Your task to perform on an android device: Search for "jbl flip 4" on ebay, select the first entry, and add it to the cart. Image 0: 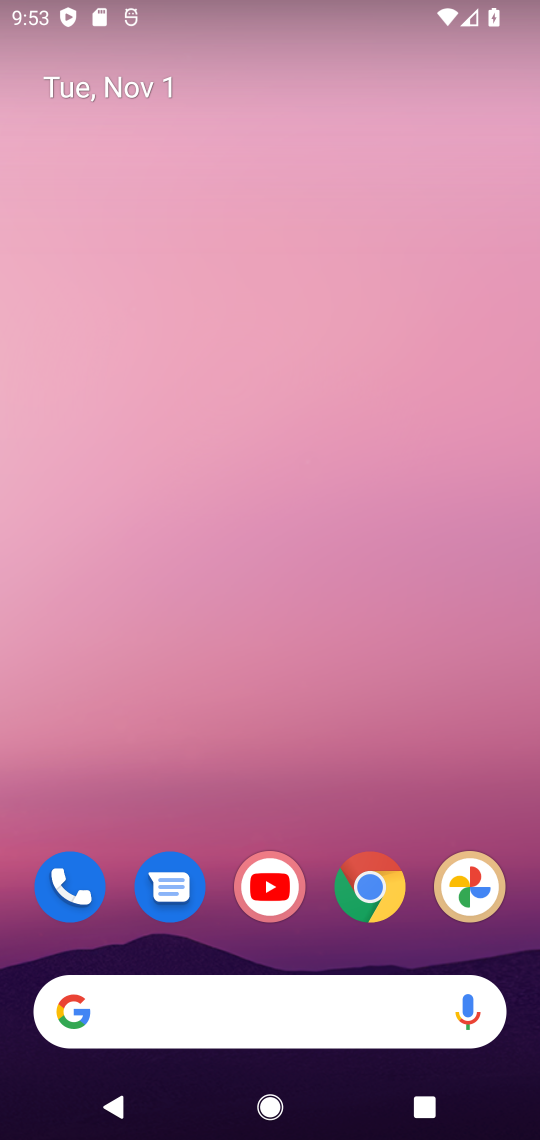
Step 0: click (375, 874)
Your task to perform on an android device: Search for "jbl flip 4" on ebay, select the first entry, and add it to the cart. Image 1: 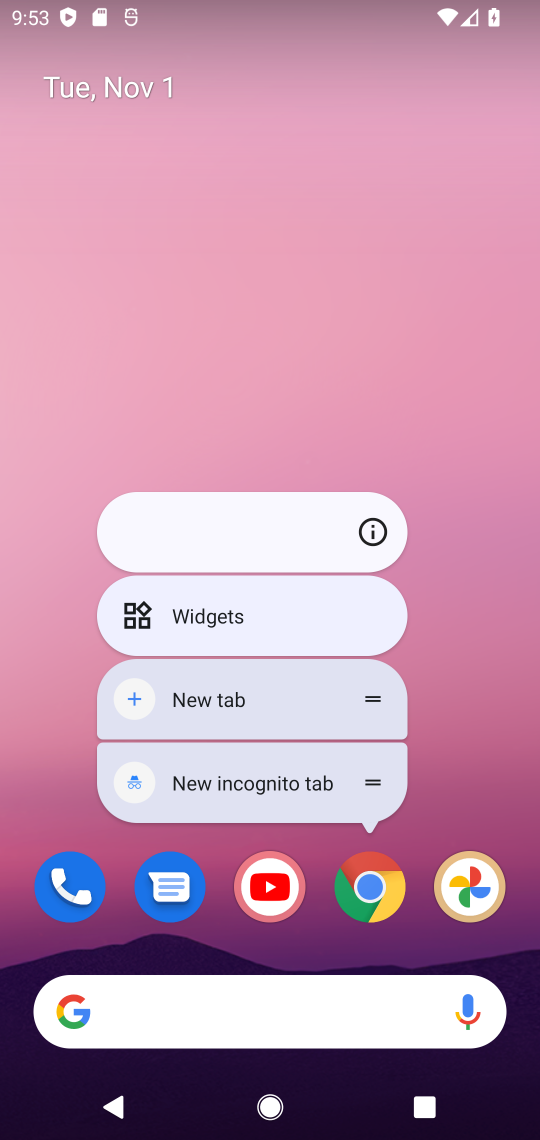
Step 1: click (373, 882)
Your task to perform on an android device: Search for "jbl flip 4" on ebay, select the first entry, and add it to the cart. Image 2: 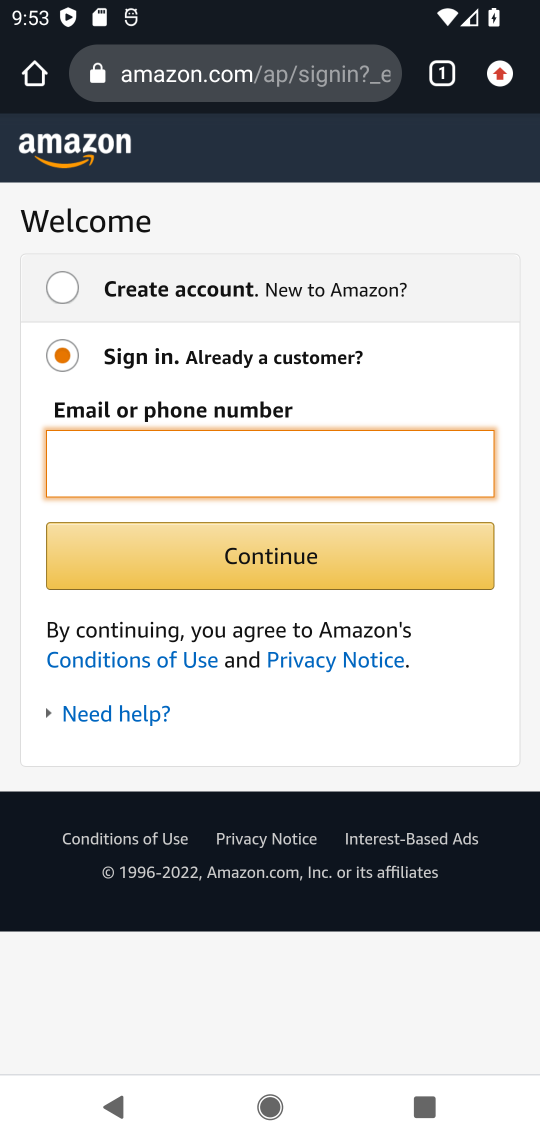
Step 2: click (307, 59)
Your task to perform on an android device: Search for "jbl flip 4" on ebay, select the first entry, and add it to the cart. Image 3: 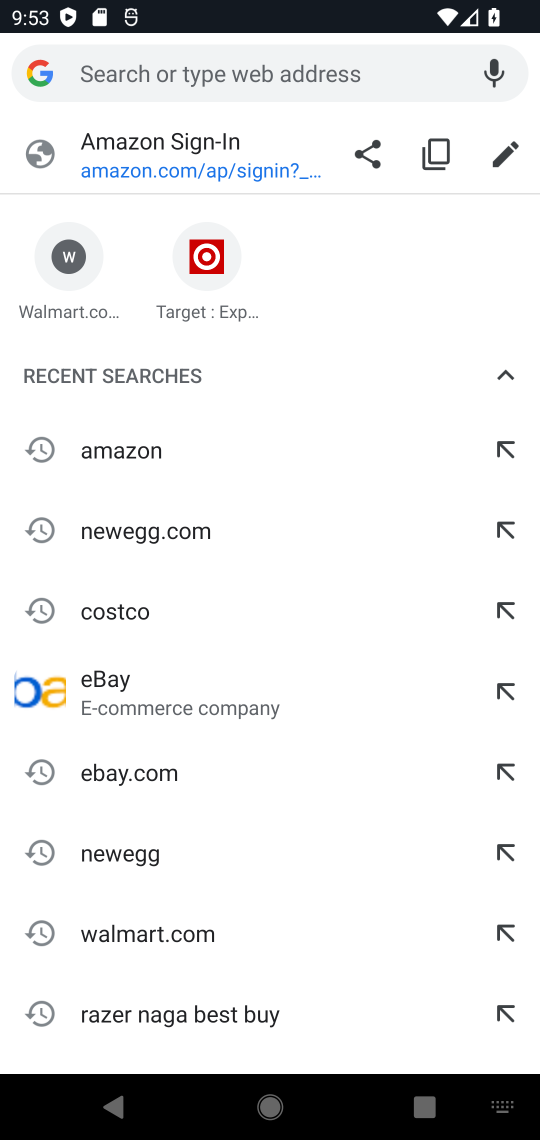
Step 3: click (110, 683)
Your task to perform on an android device: Search for "jbl flip 4" on ebay, select the first entry, and add it to the cart. Image 4: 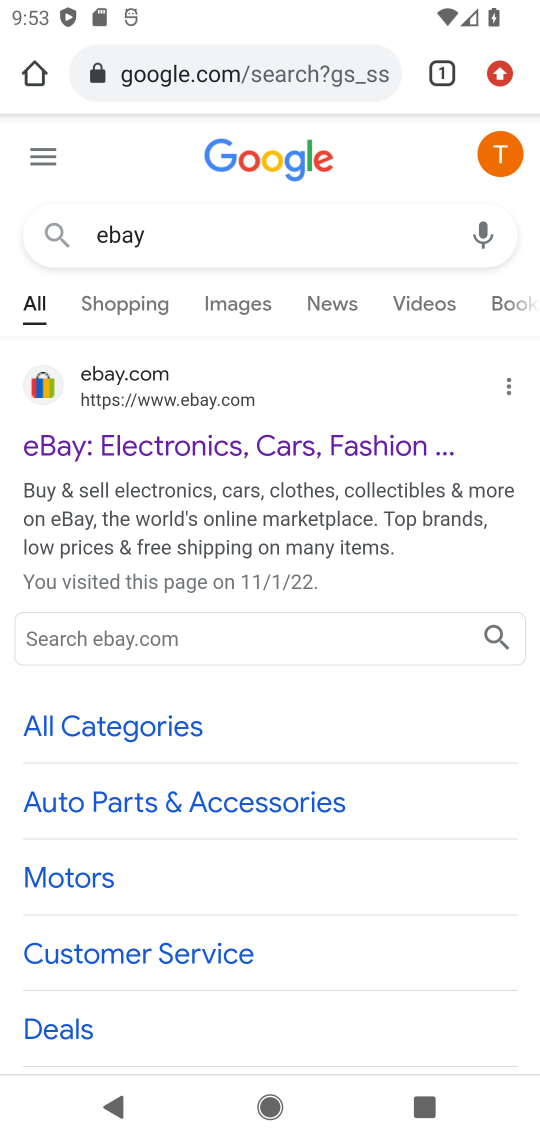
Step 4: click (121, 366)
Your task to perform on an android device: Search for "jbl flip 4" on ebay, select the first entry, and add it to the cart. Image 5: 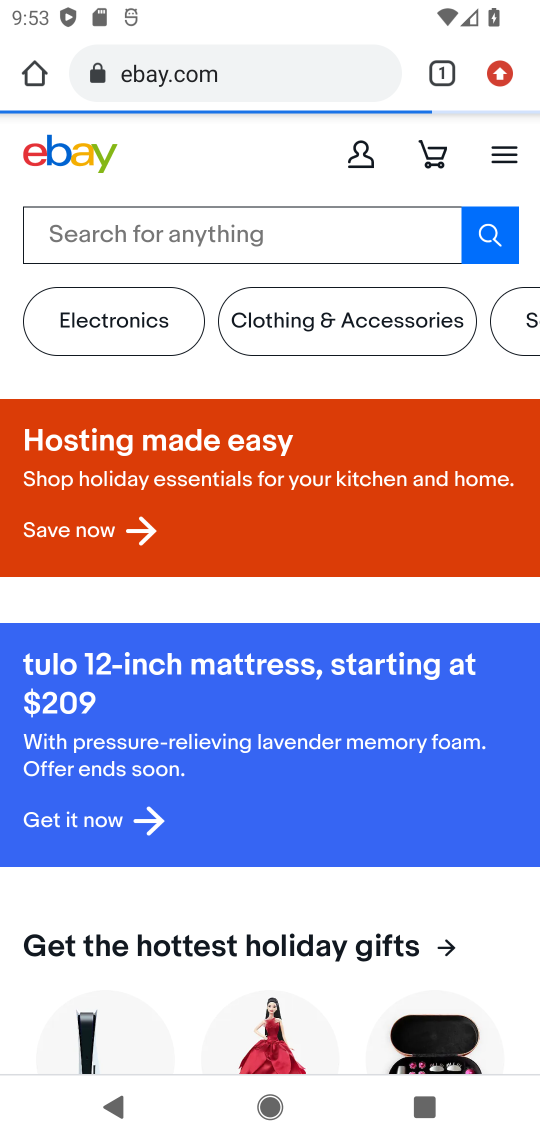
Step 5: click (282, 238)
Your task to perform on an android device: Search for "jbl flip 4" on ebay, select the first entry, and add it to the cart. Image 6: 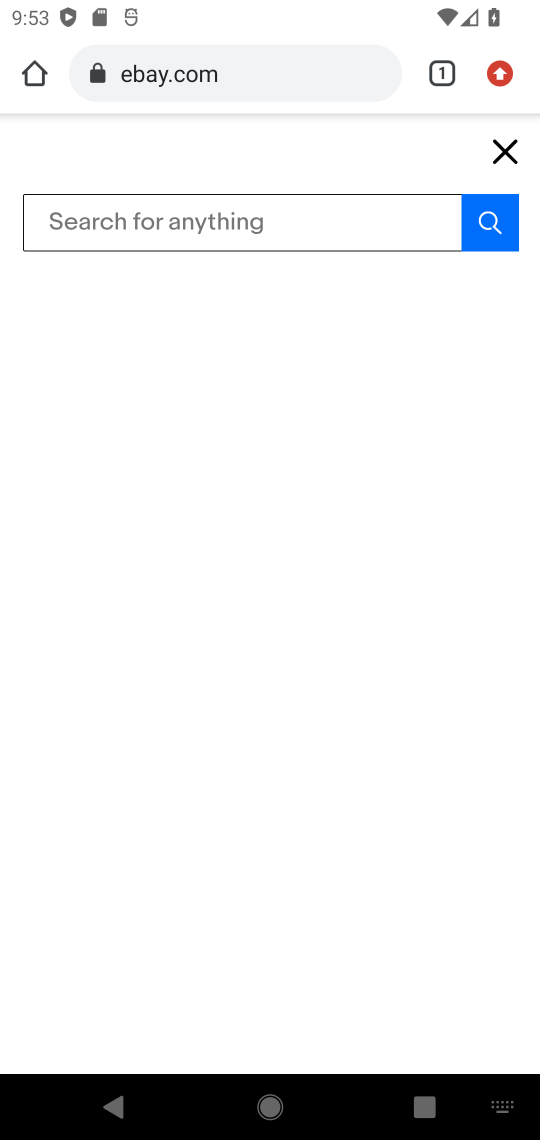
Step 6: type ""jbl flip 4"
Your task to perform on an android device: Search for "jbl flip 4" on ebay, select the first entry, and add it to the cart. Image 7: 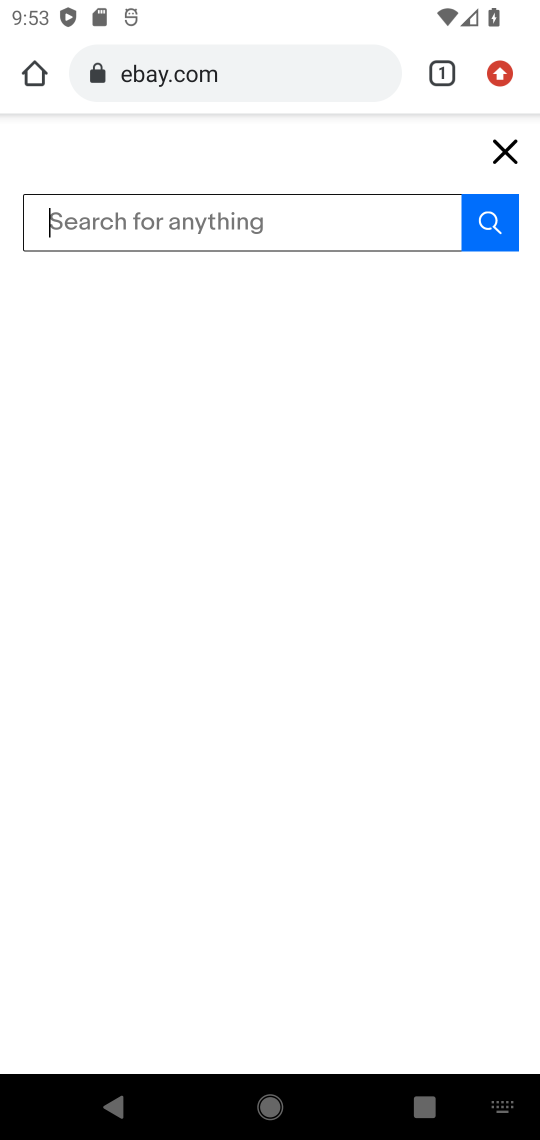
Step 7: press enter
Your task to perform on an android device: Search for "jbl flip 4" on ebay, select the first entry, and add it to the cart. Image 8: 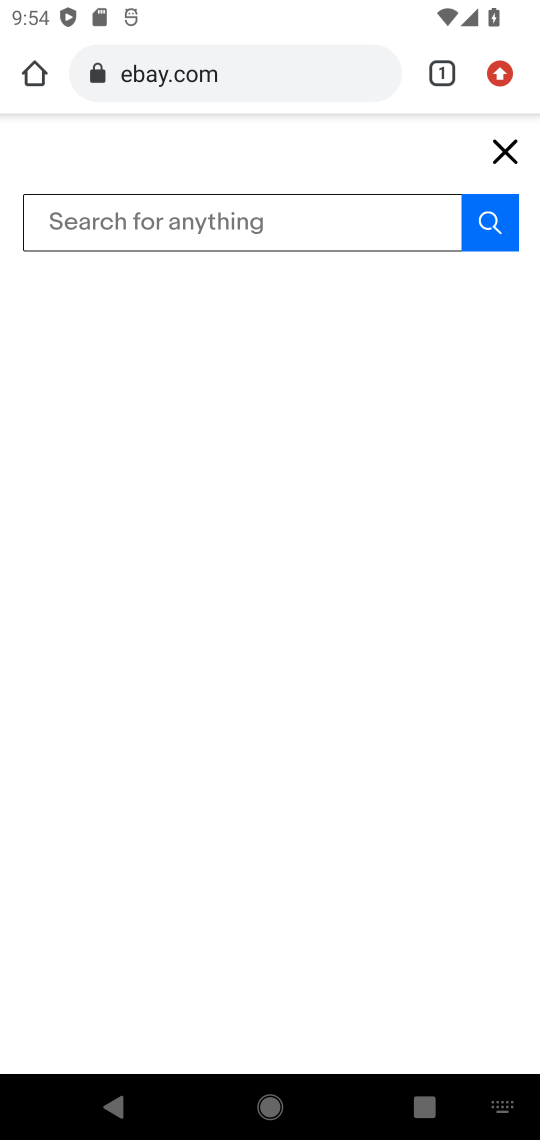
Step 8: click (252, 209)
Your task to perform on an android device: Search for "jbl flip 4" on ebay, select the first entry, and add it to the cart. Image 9: 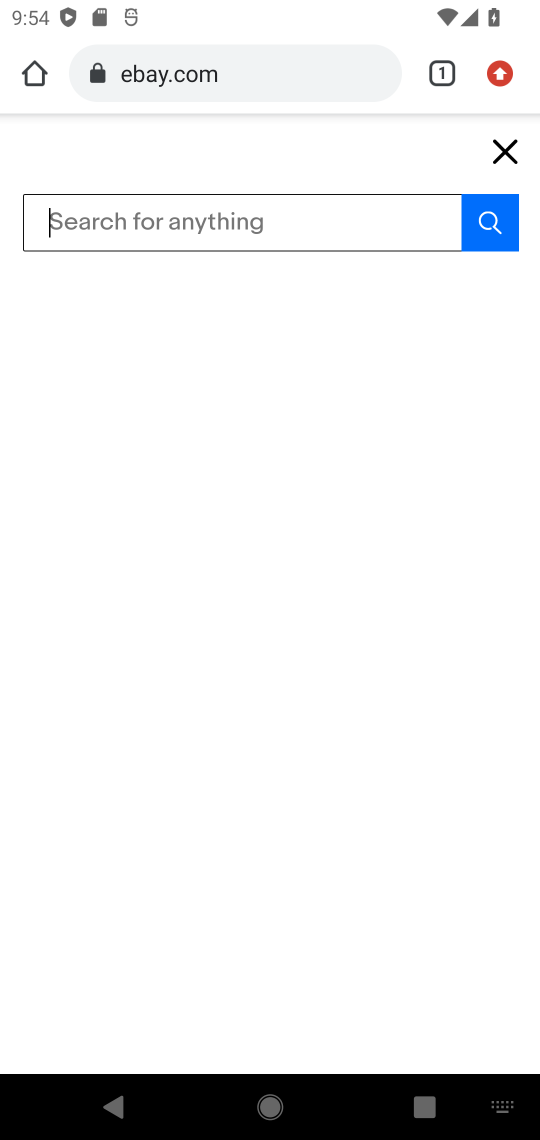
Step 9: type ""jbl flip 4"
Your task to perform on an android device: Search for "jbl flip 4" on ebay, select the first entry, and add it to the cart. Image 10: 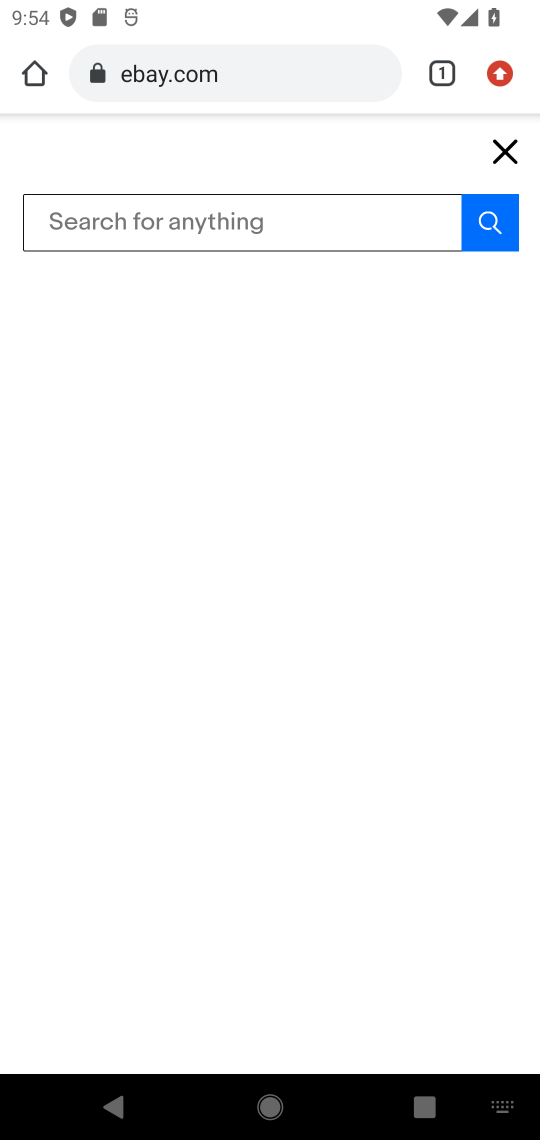
Step 10: press enter
Your task to perform on an android device: Search for "jbl flip 4" on ebay, select the first entry, and add it to the cart. Image 11: 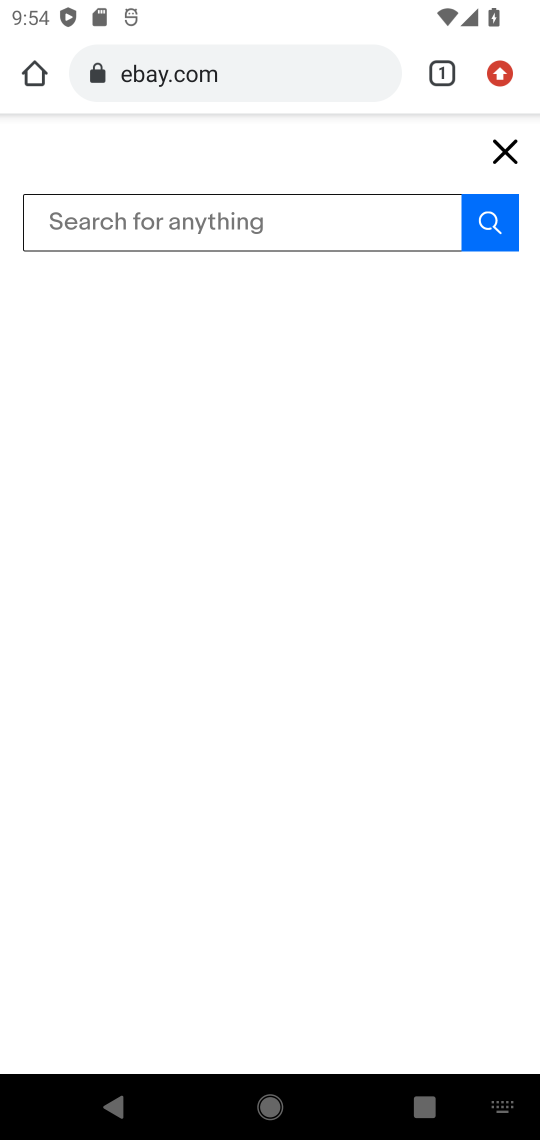
Step 11: click (369, 227)
Your task to perform on an android device: Search for "jbl flip 4" on ebay, select the first entry, and add it to the cart. Image 12: 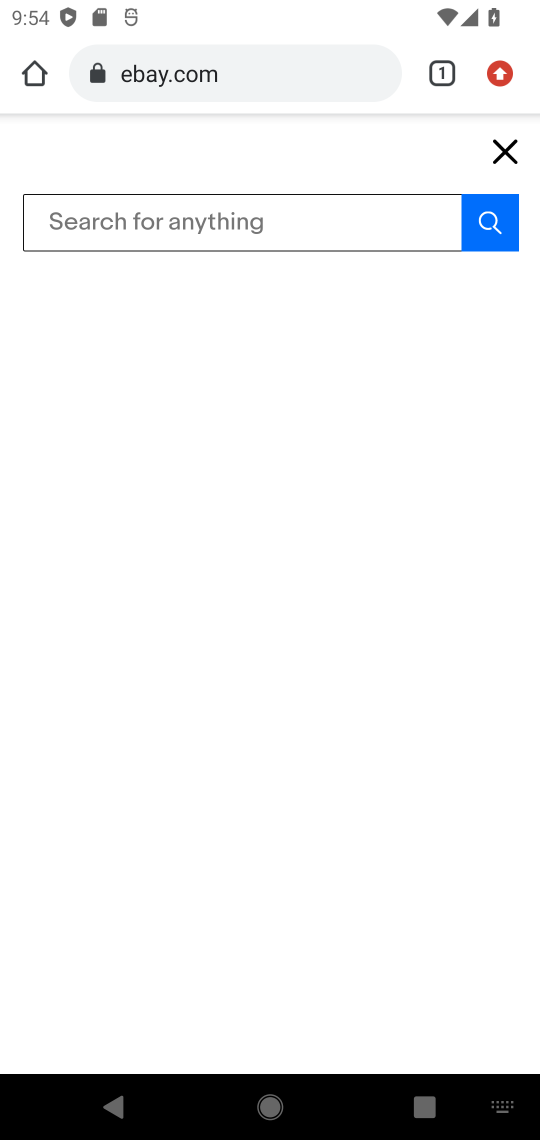
Step 12: type "jbl flip 4"
Your task to perform on an android device: Search for "jbl flip 4" on ebay, select the first entry, and add it to the cart. Image 13: 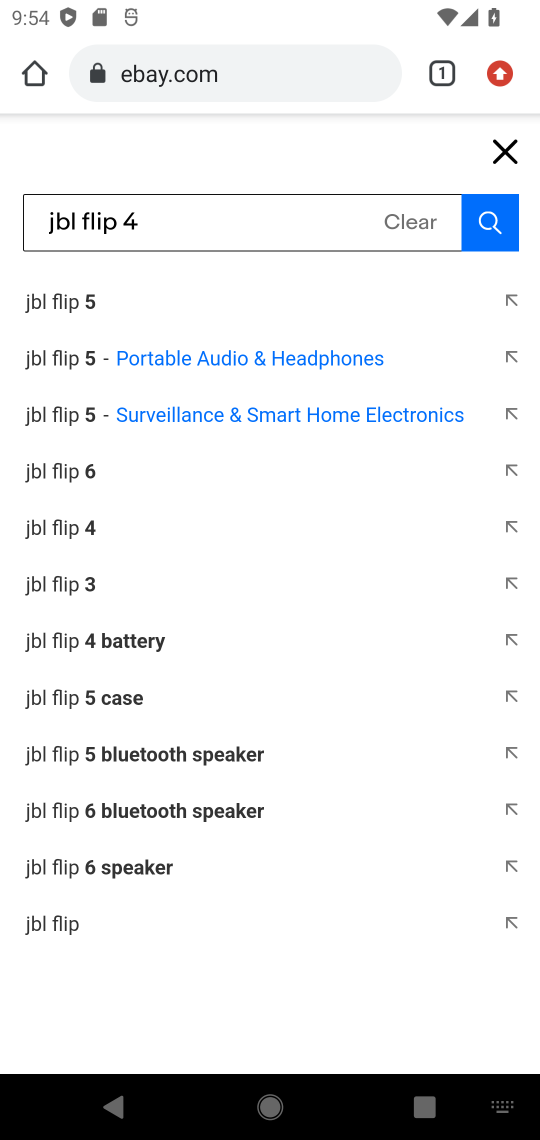
Step 13: click (64, 526)
Your task to perform on an android device: Search for "jbl flip 4" on ebay, select the first entry, and add it to the cart. Image 14: 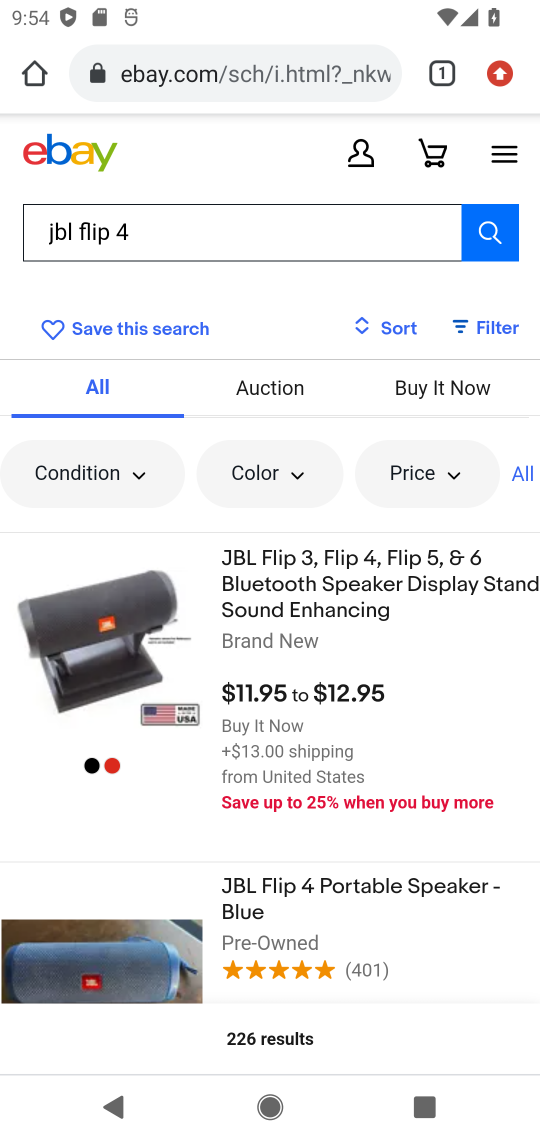
Step 14: click (146, 941)
Your task to perform on an android device: Search for "jbl flip 4" on ebay, select the first entry, and add it to the cart. Image 15: 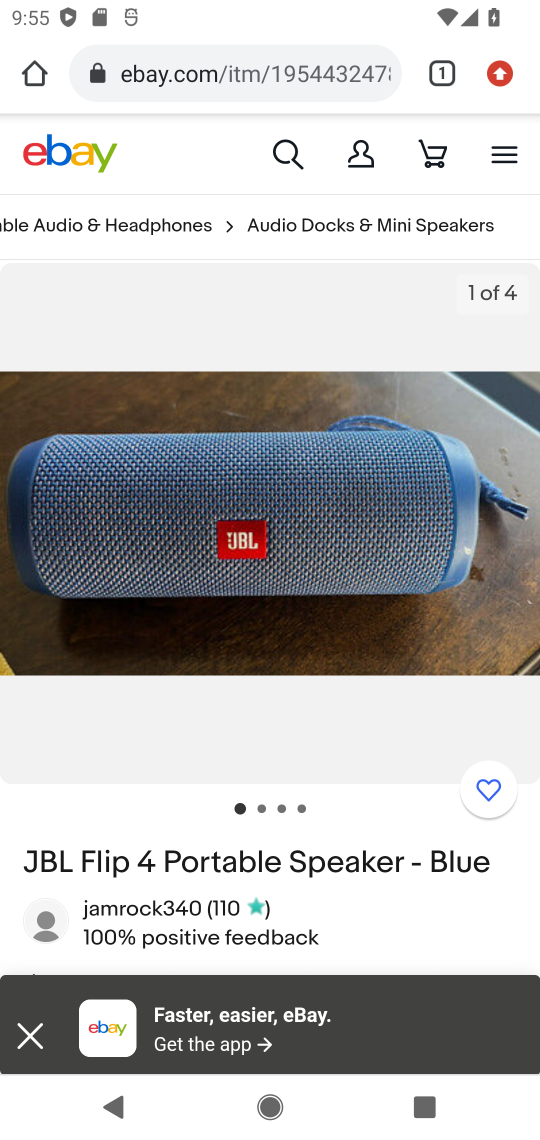
Step 15: drag from (327, 899) to (409, 446)
Your task to perform on an android device: Search for "jbl flip 4" on ebay, select the first entry, and add it to the cart. Image 16: 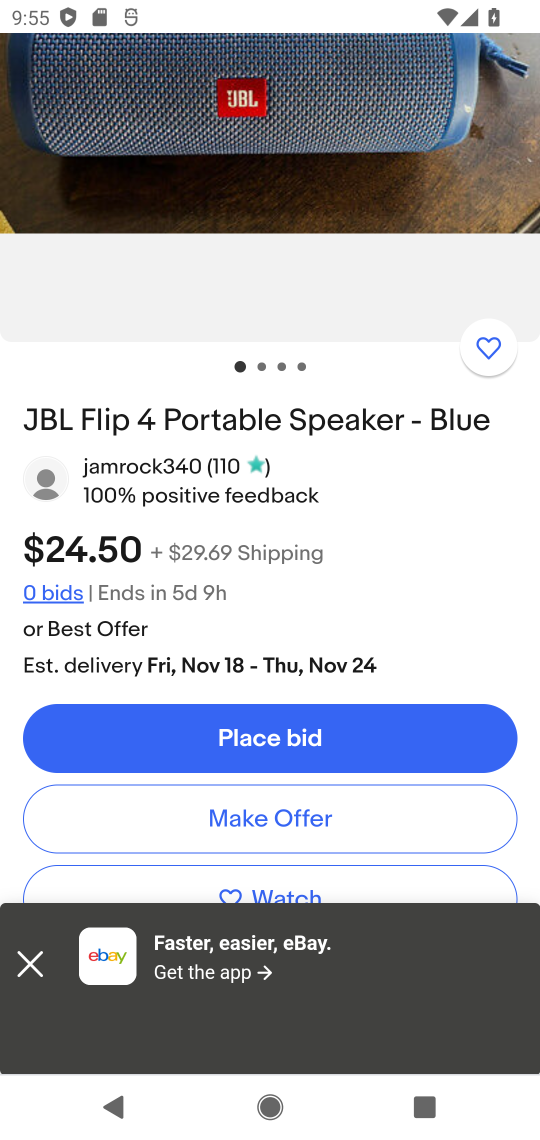
Step 16: drag from (380, 524) to (380, 399)
Your task to perform on an android device: Search for "jbl flip 4" on ebay, select the first entry, and add it to the cart. Image 17: 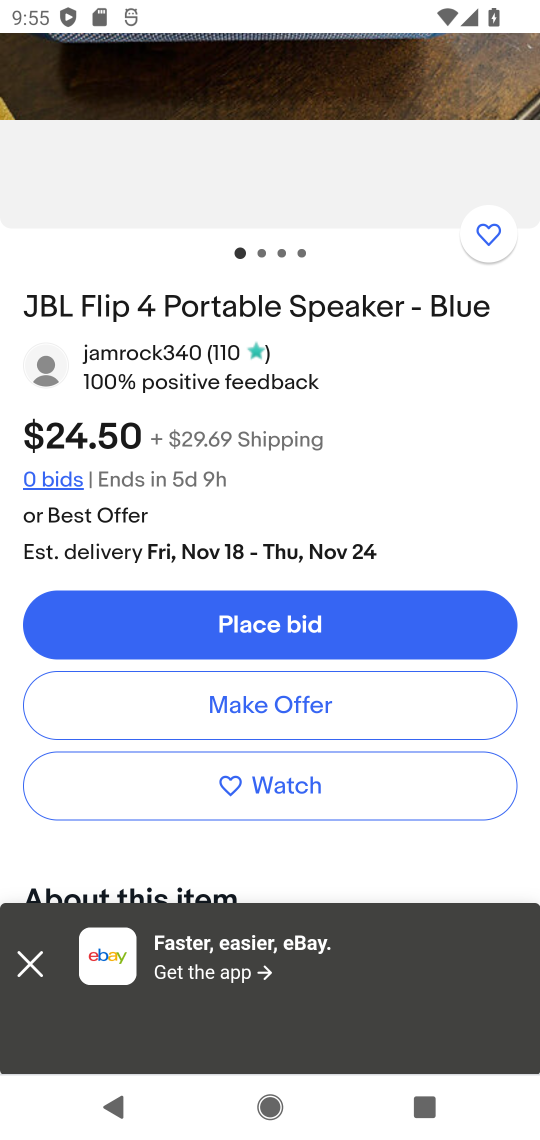
Step 17: press back button
Your task to perform on an android device: Search for "jbl flip 4" on ebay, select the first entry, and add it to the cart. Image 18: 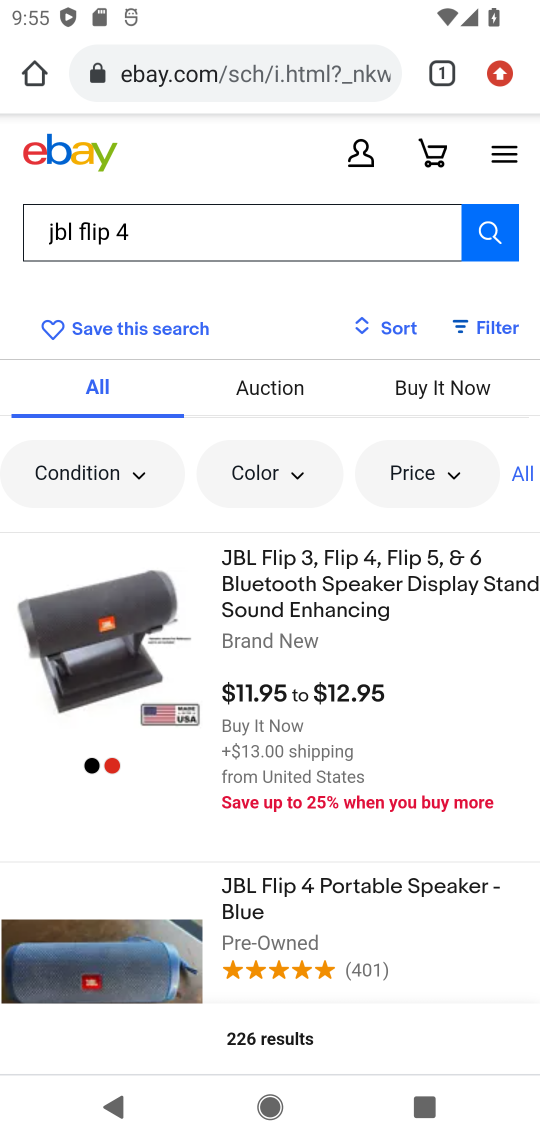
Step 18: click (66, 602)
Your task to perform on an android device: Search for "jbl flip 4" on ebay, select the first entry, and add it to the cart. Image 19: 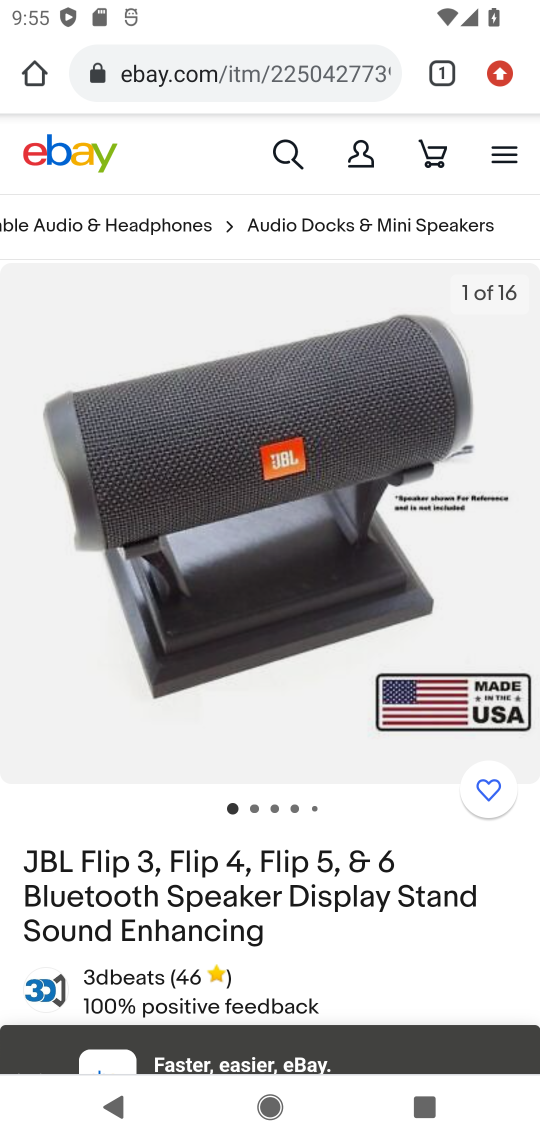
Step 19: drag from (243, 817) to (218, 273)
Your task to perform on an android device: Search for "jbl flip 4" on ebay, select the first entry, and add it to the cart. Image 20: 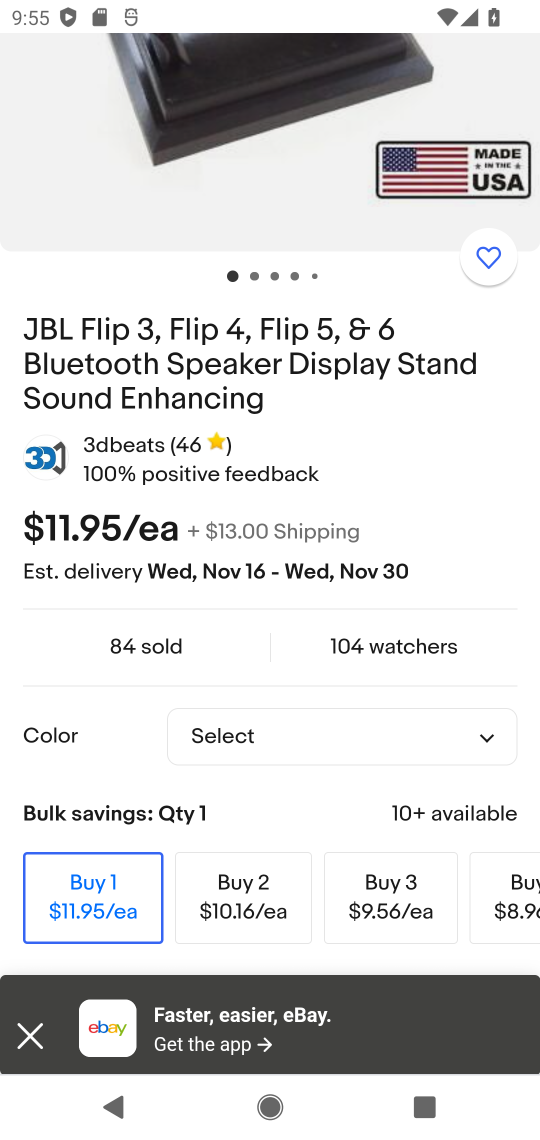
Step 20: drag from (283, 802) to (279, 495)
Your task to perform on an android device: Search for "jbl flip 4" on ebay, select the first entry, and add it to the cart. Image 21: 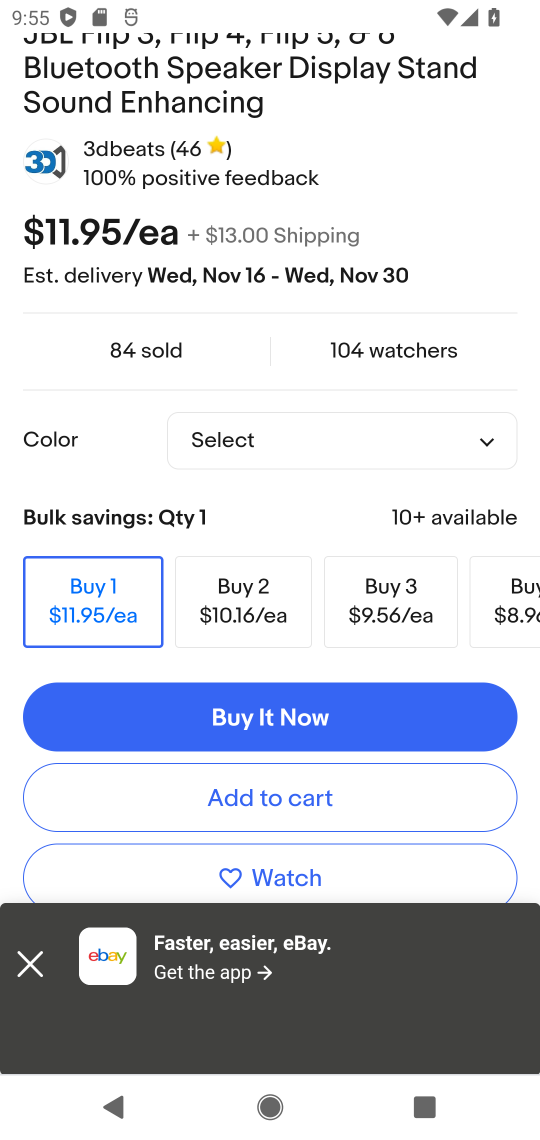
Step 21: click (354, 787)
Your task to perform on an android device: Search for "jbl flip 4" on ebay, select the first entry, and add it to the cart. Image 22: 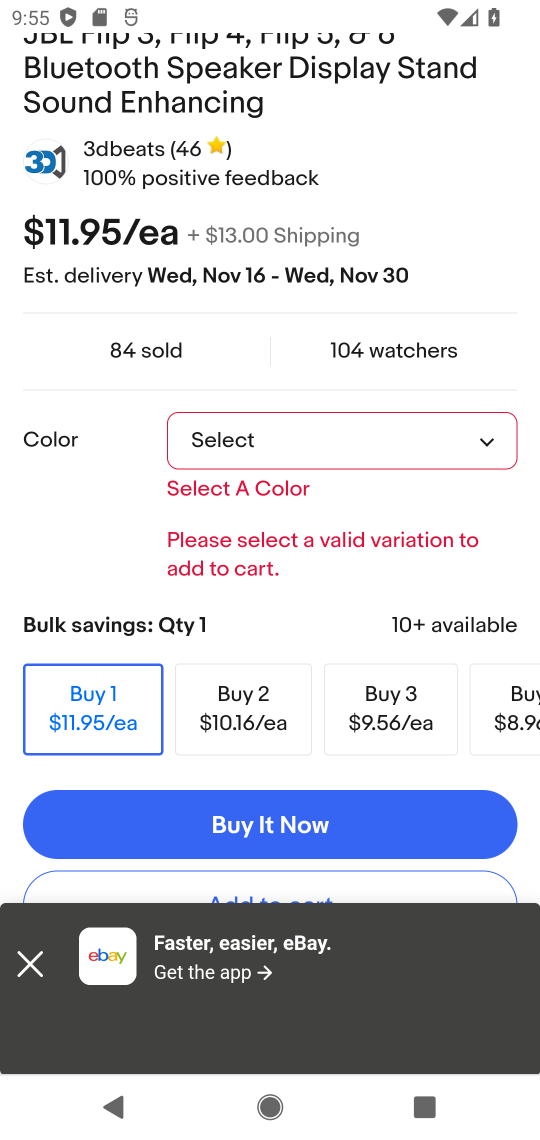
Step 22: task complete